Your task to perform on an android device: Show me popular videos on Youtube Image 0: 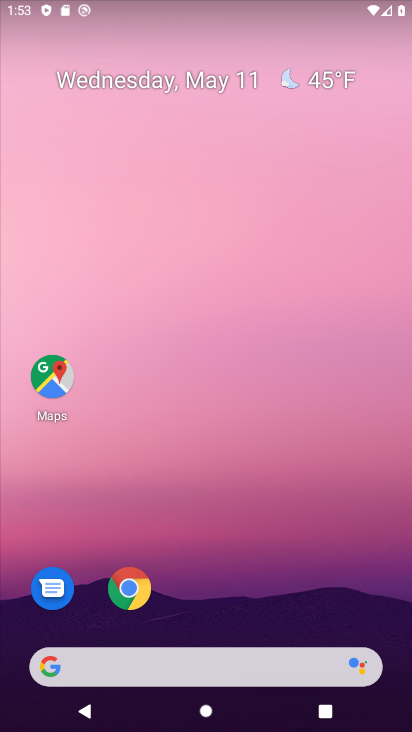
Step 0: drag from (223, 623) to (221, 252)
Your task to perform on an android device: Show me popular videos on Youtube Image 1: 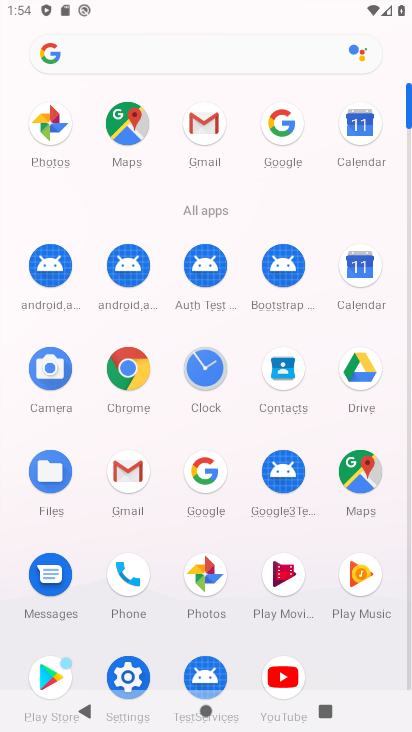
Step 1: click (270, 678)
Your task to perform on an android device: Show me popular videos on Youtube Image 2: 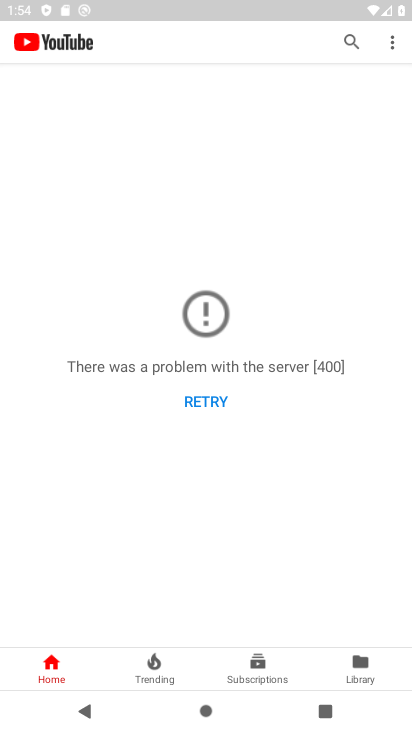
Step 2: click (346, 36)
Your task to perform on an android device: Show me popular videos on Youtube Image 3: 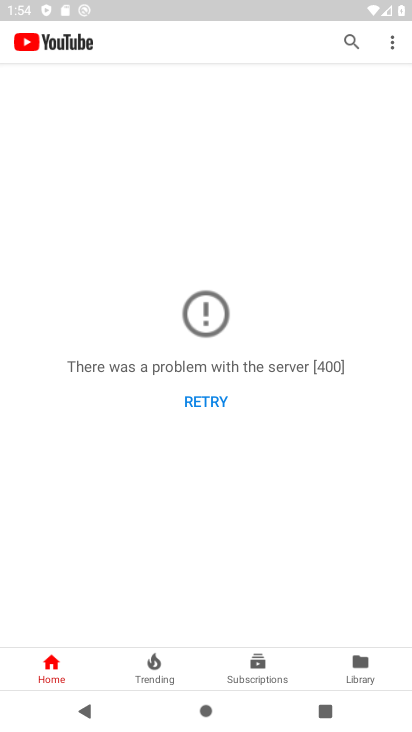
Step 3: type "popular videos"
Your task to perform on an android device: Show me popular videos on Youtube Image 4: 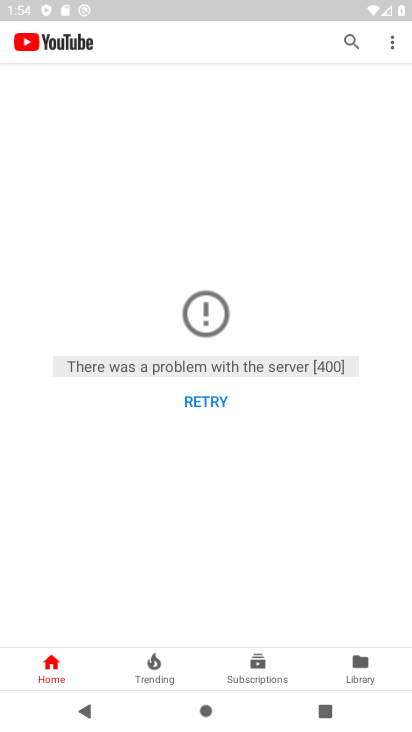
Step 4: click (342, 42)
Your task to perform on an android device: Show me popular videos on Youtube Image 5: 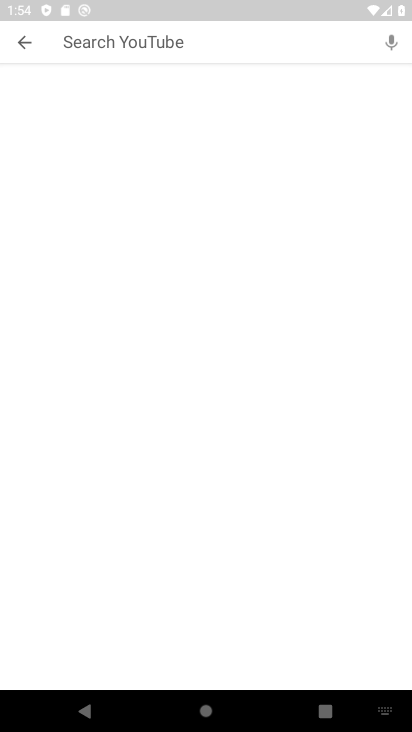
Step 5: type "popular videos"
Your task to perform on an android device: Show me popular videos on Youtube Image 6: 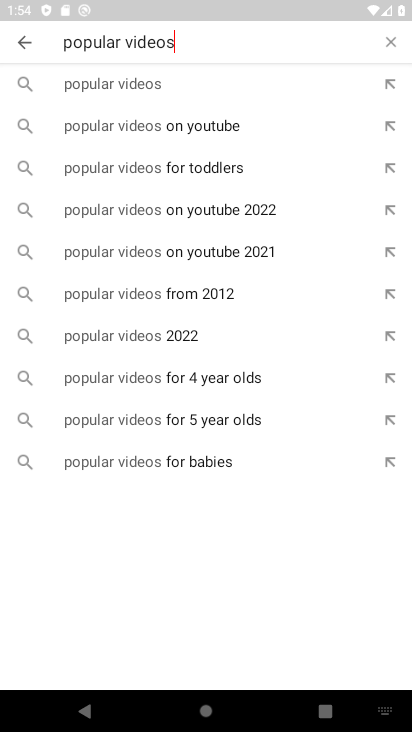
Step 6: click (174, 74)
Your task to perform on an android device: Show me popular videos on Youtube Image 7: 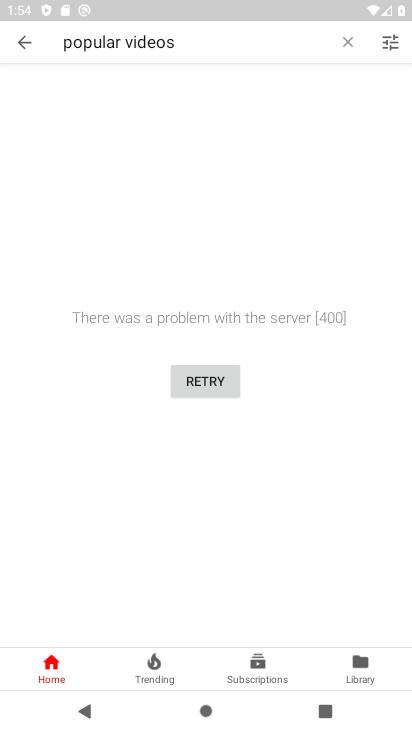
Step 7: task complete